Your task to perform on an android device: turn pop-ups on in chrome Image 0: 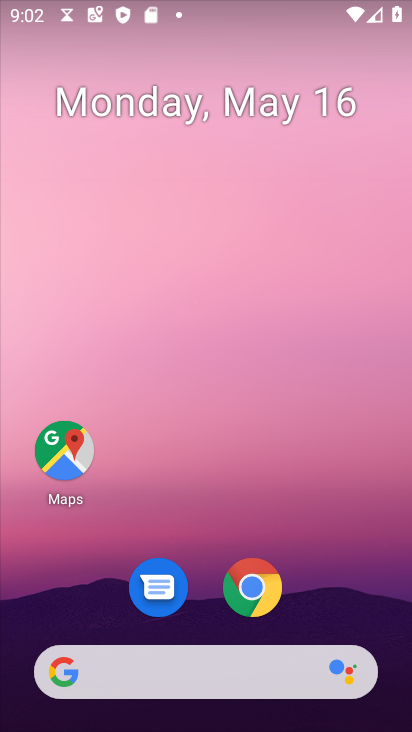
Step 0: click (258, 586)
Your task to perform on an android device: turn pop-ups on in chrome Image 1: 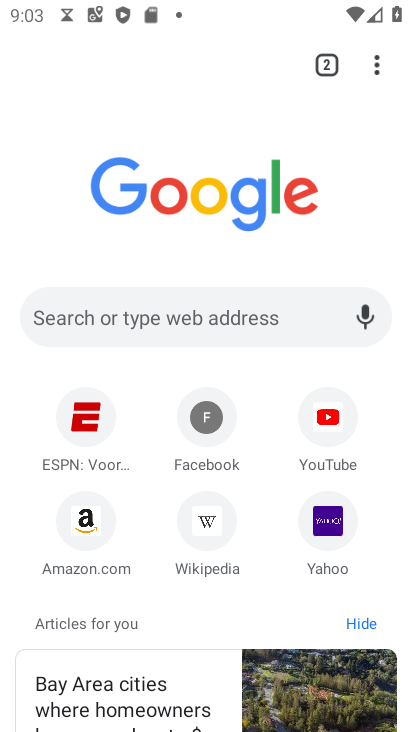
Step 1: click (379, 55)
Your task to perform on an android device: turn pop-ups on in chrome Image 2: 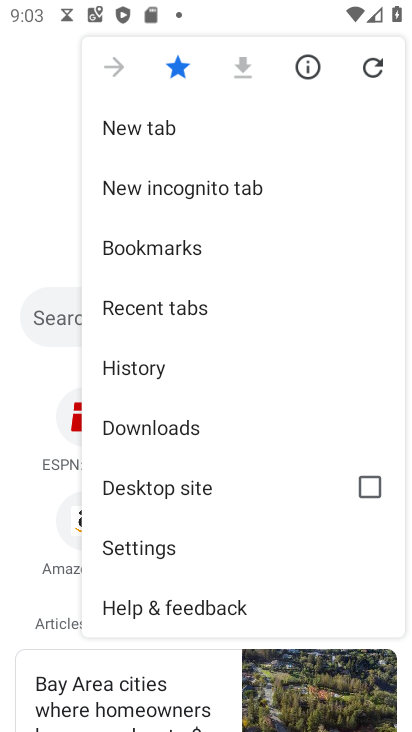
Step 2: click (240, 558)
Your task to perform on an android device: turn pop-ups on in chrome Image 3: 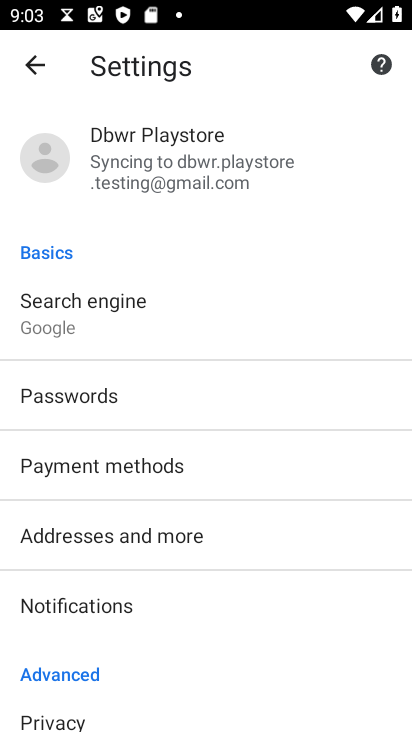
Step 3: drag from (250, 631) to (240, 352)
Your task to perform on an android device: turn pop-ups on in chrome Image 4: 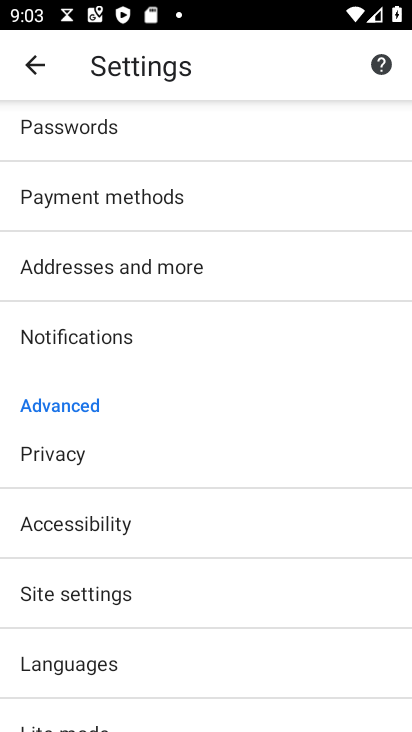
Step 4: drag from (266, 676) to (276, 433)
Your task to perform on an android device: turn pop-ups on in chrome Image 5: 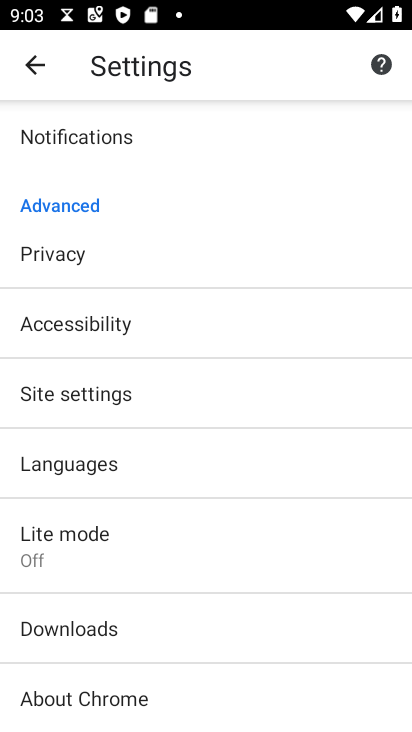
Step 5: click (259, 416)
Your task to perform on an android device: turn pop-ups on in chrome Image 6: 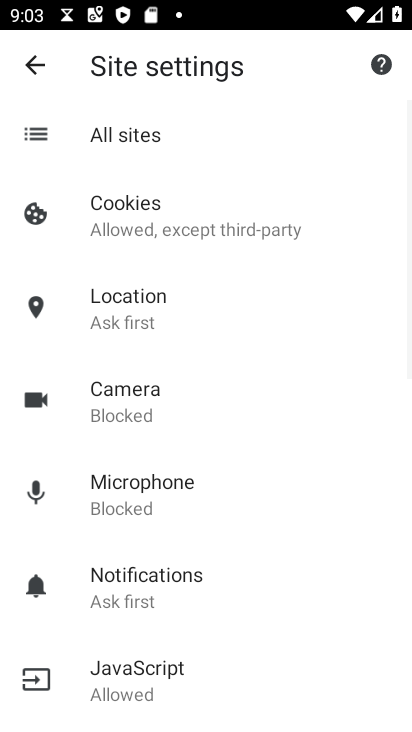
Step 6: drag from (293, 688) to (269, 437)
Your task to perform on an android device: turn pop-ups on in chrome Image 7: 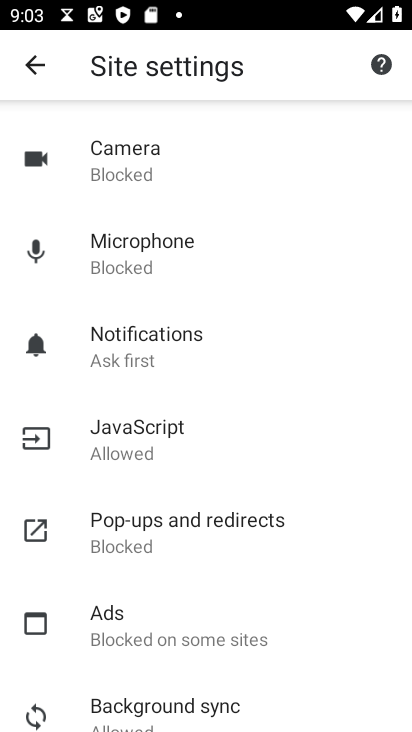
Step 7: click (264, 532)
Your task to perform on an android device: turn pop-ups on in chrome Image 8: 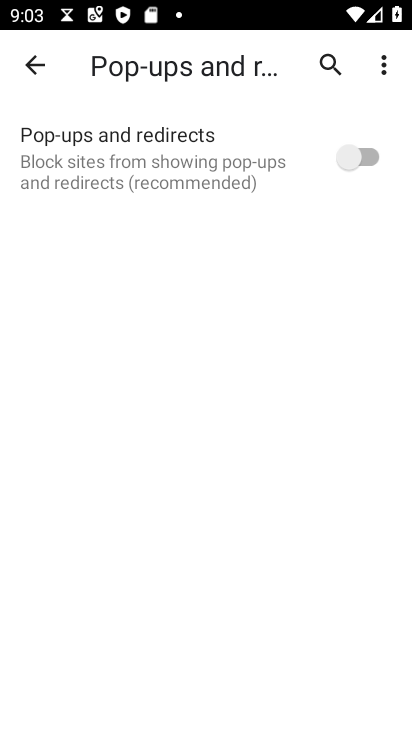
Step 8: click (360, 148)
Your task to perform on an android device: turn pop-ups on in chrome Image 9: 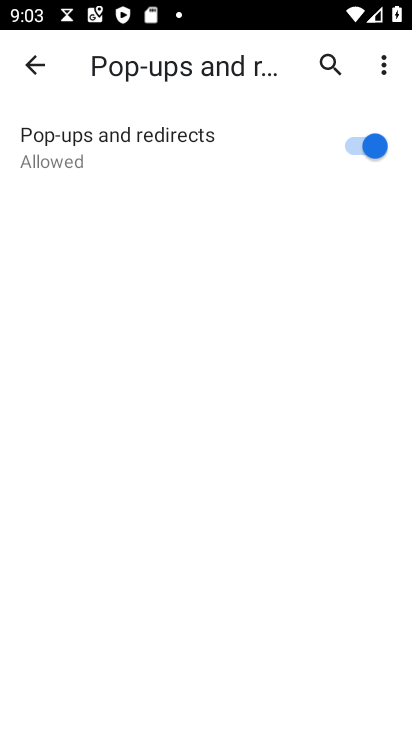
Step 9: task complete